Your task to perform on an android device: Open location settings Image 0: 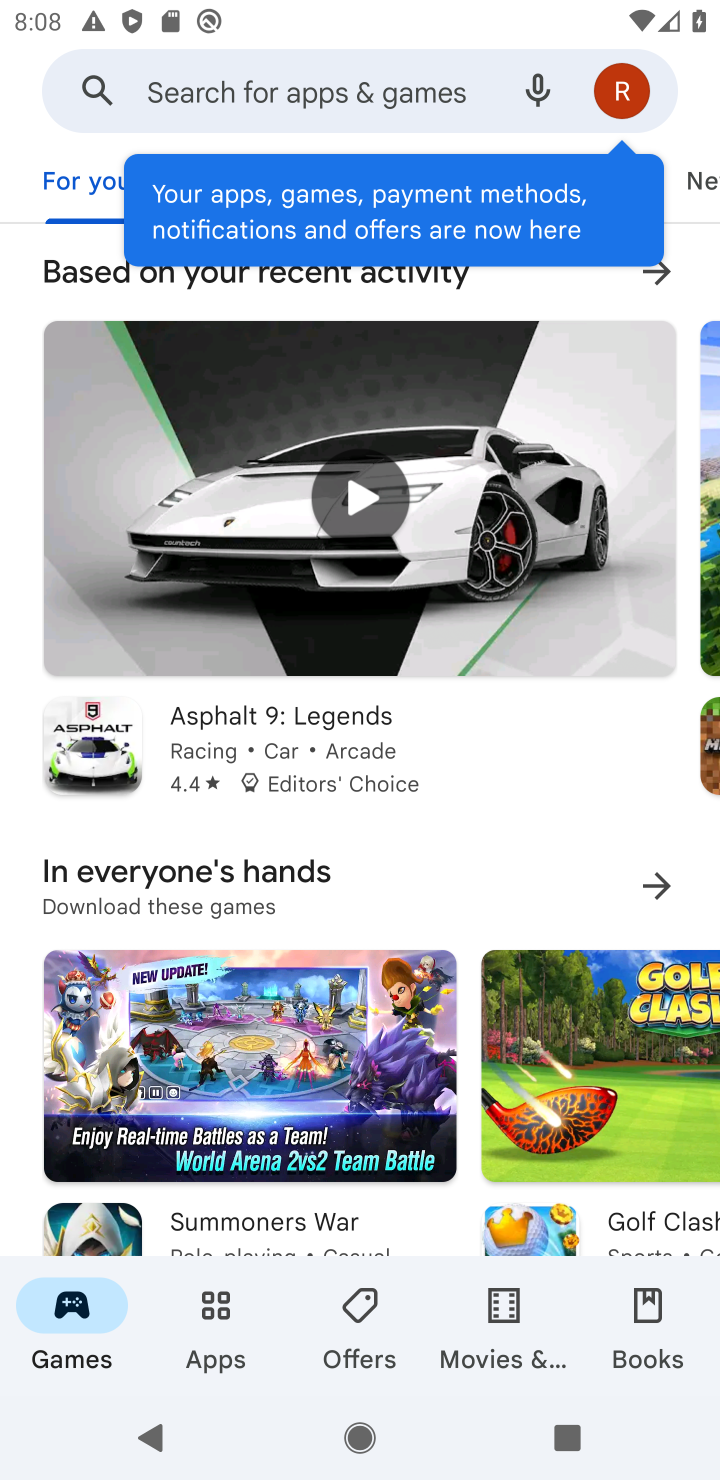
Step 0: press back button
Your task to perform on an android device: Open location settings Image 1: 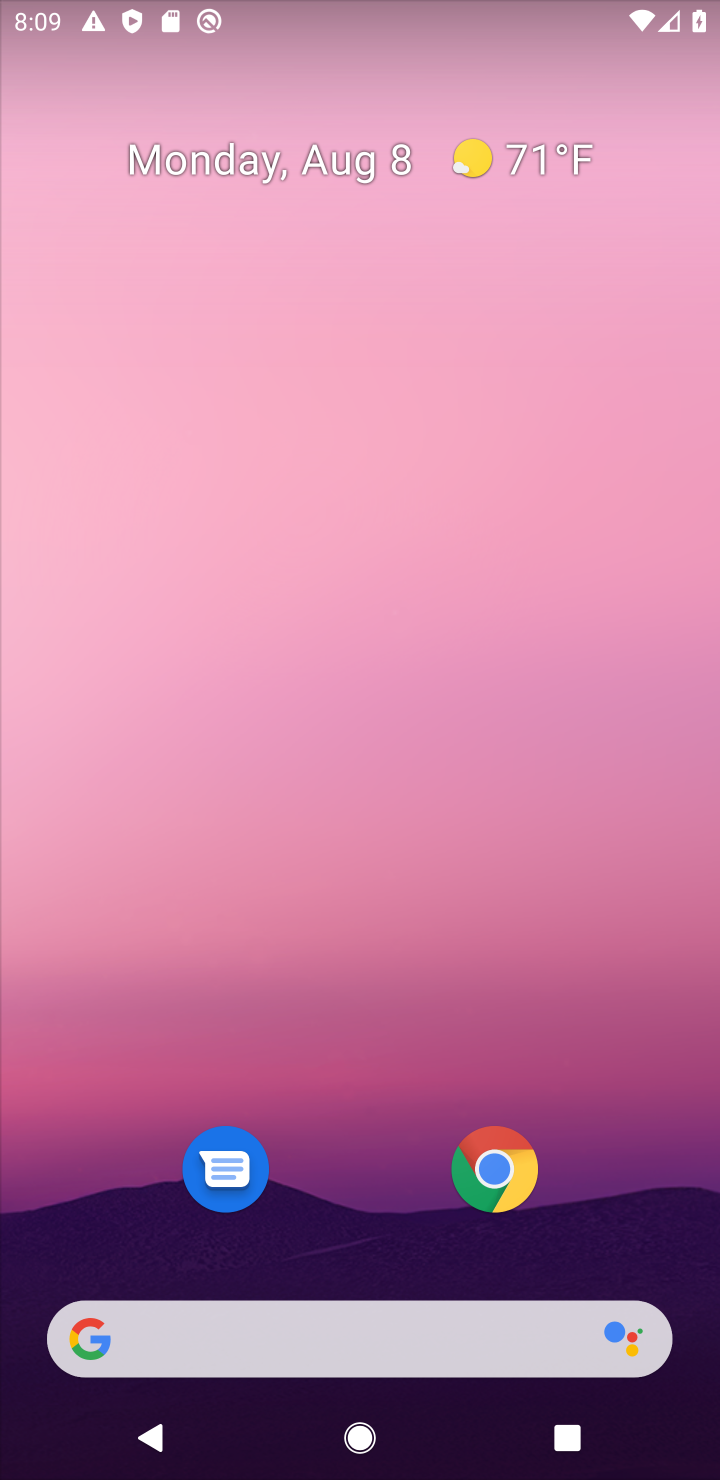
Step 1: drag from (465, 760) to (614, 91)
Your task to perform on an android device: Open location settings Image 2: 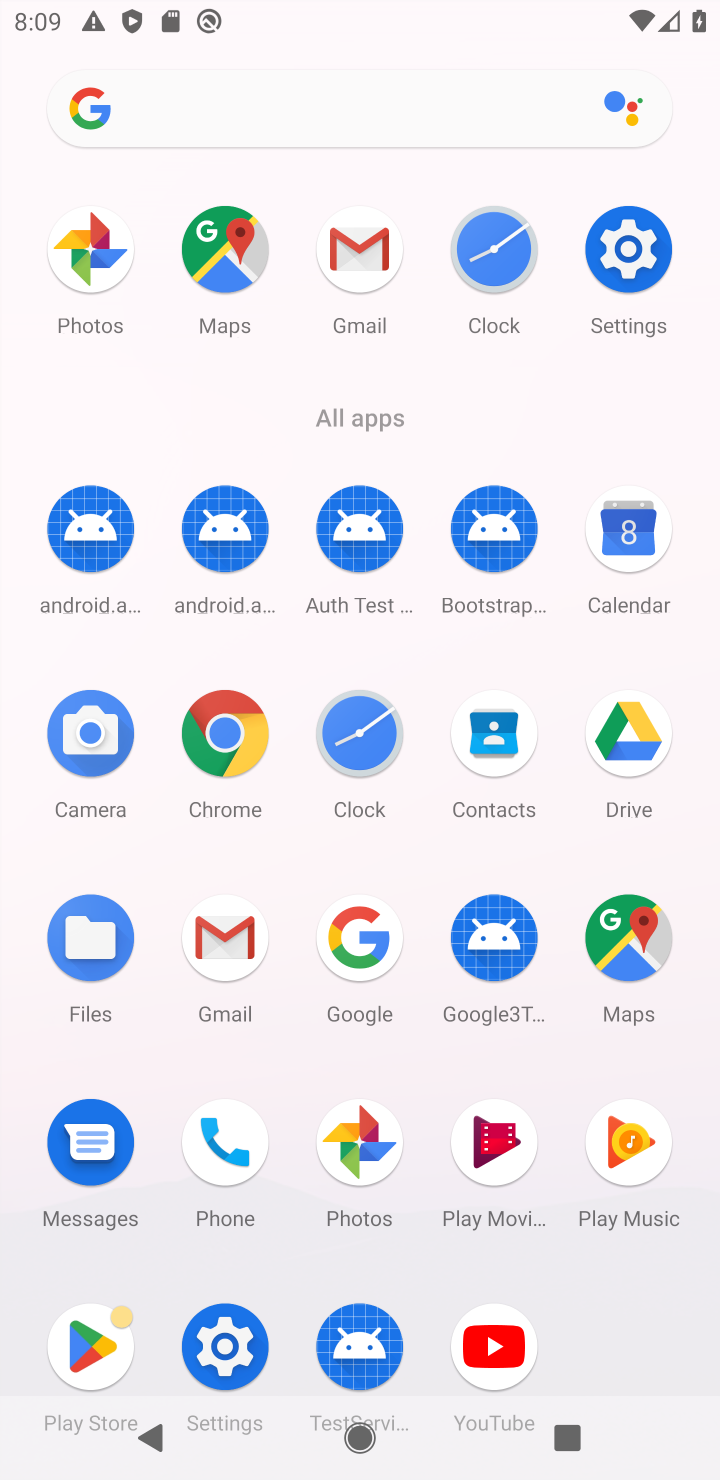
Step 2: click (637, 231)
Your task to perform on an android device: Open location settings Image 3: 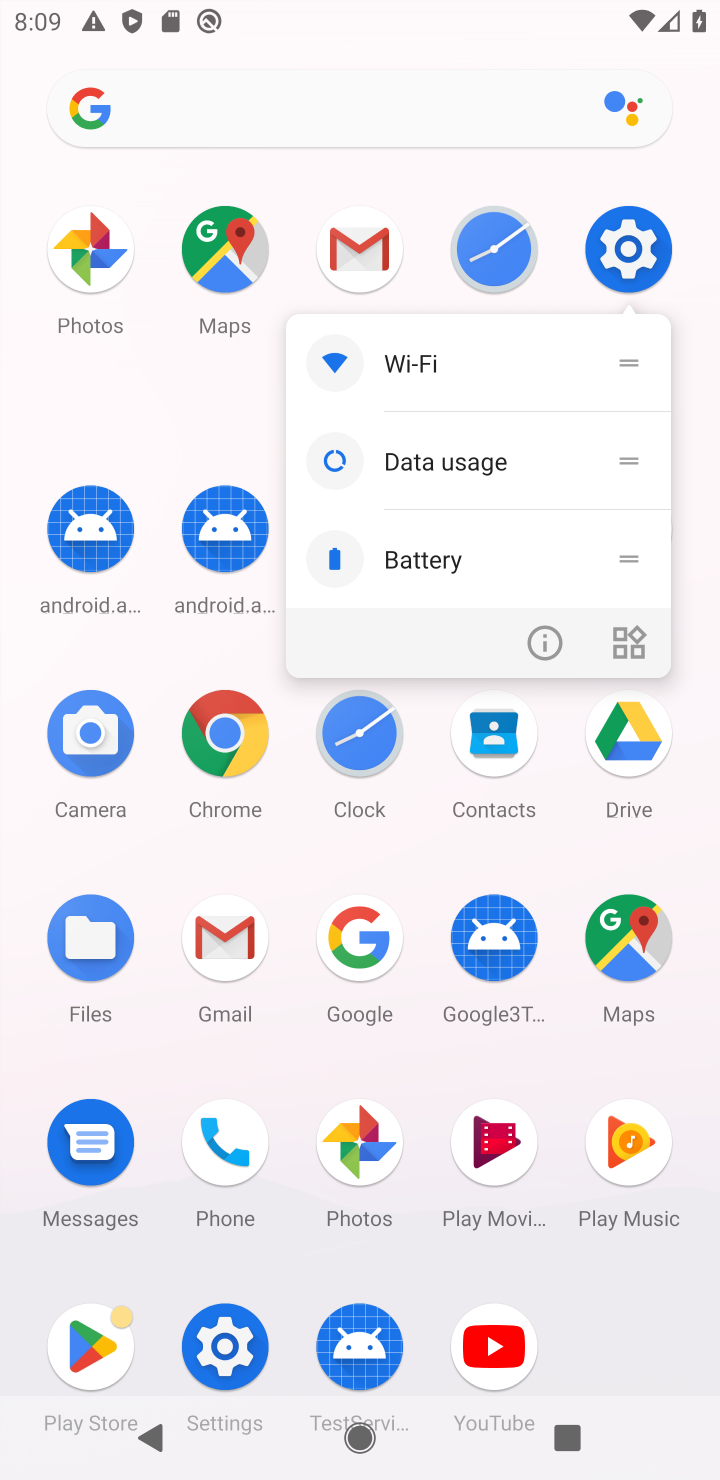
Step 3: click (639, 237)
Your task to perform on an android device: Open location settings Image 4: 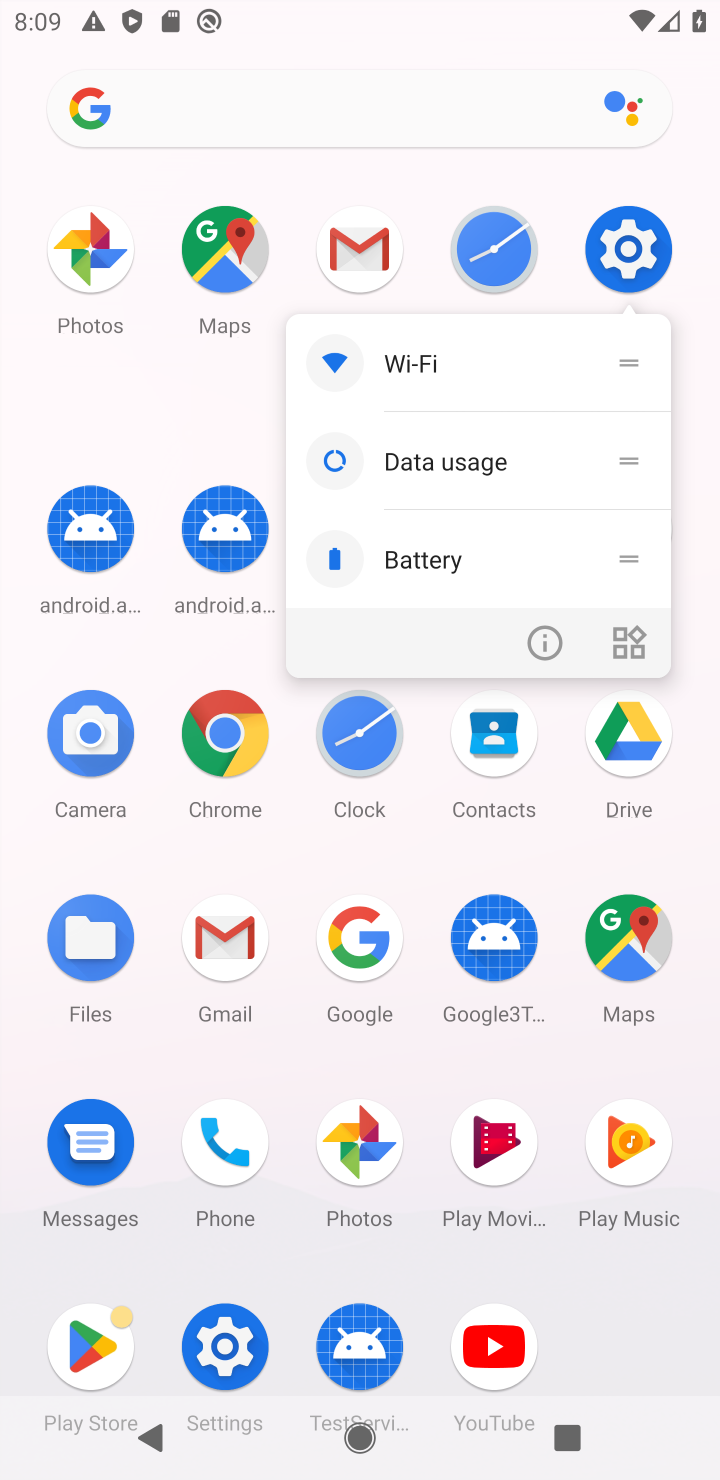
Step 4: click (618, 252)
Your task to perform on an android device: Open location settings Image 5: 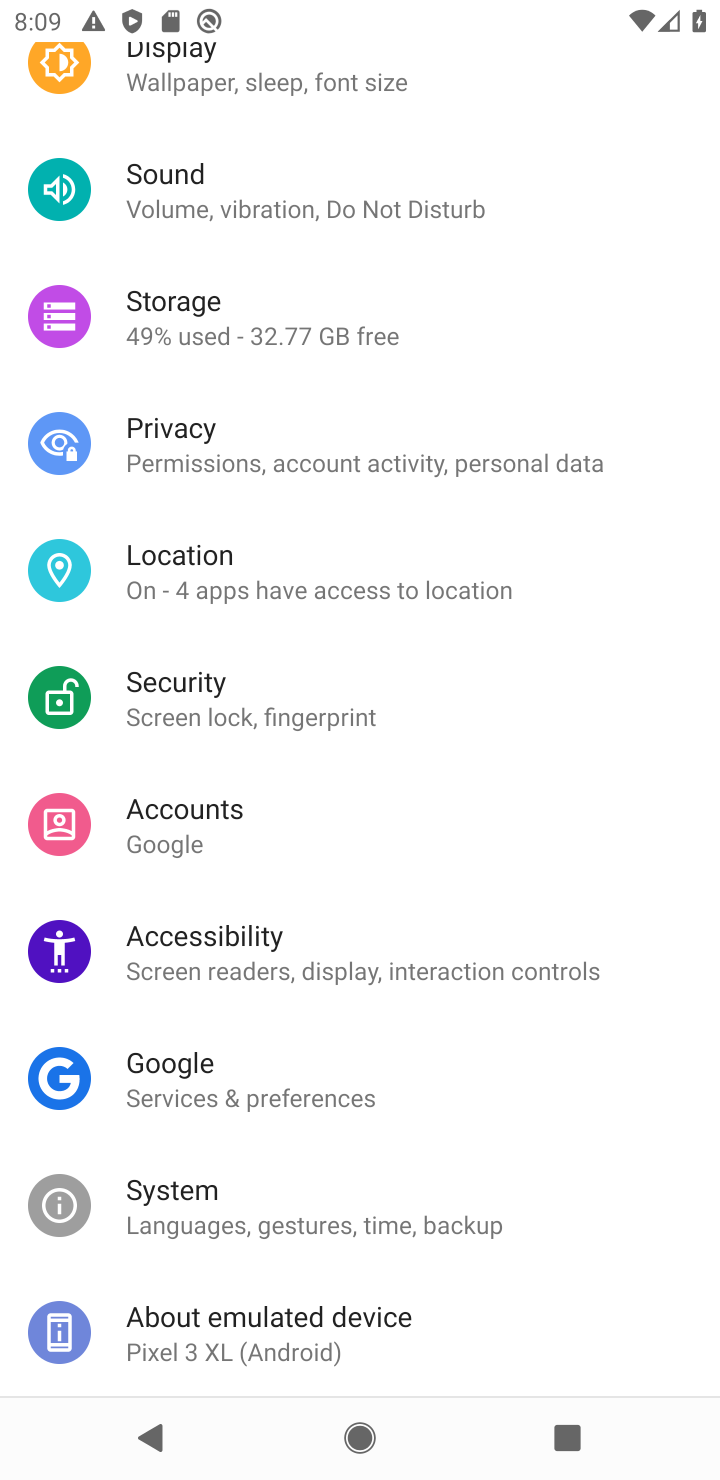
Step 5: click (660, 264)
Your task to perform on an android device: Open location settings Image 6: 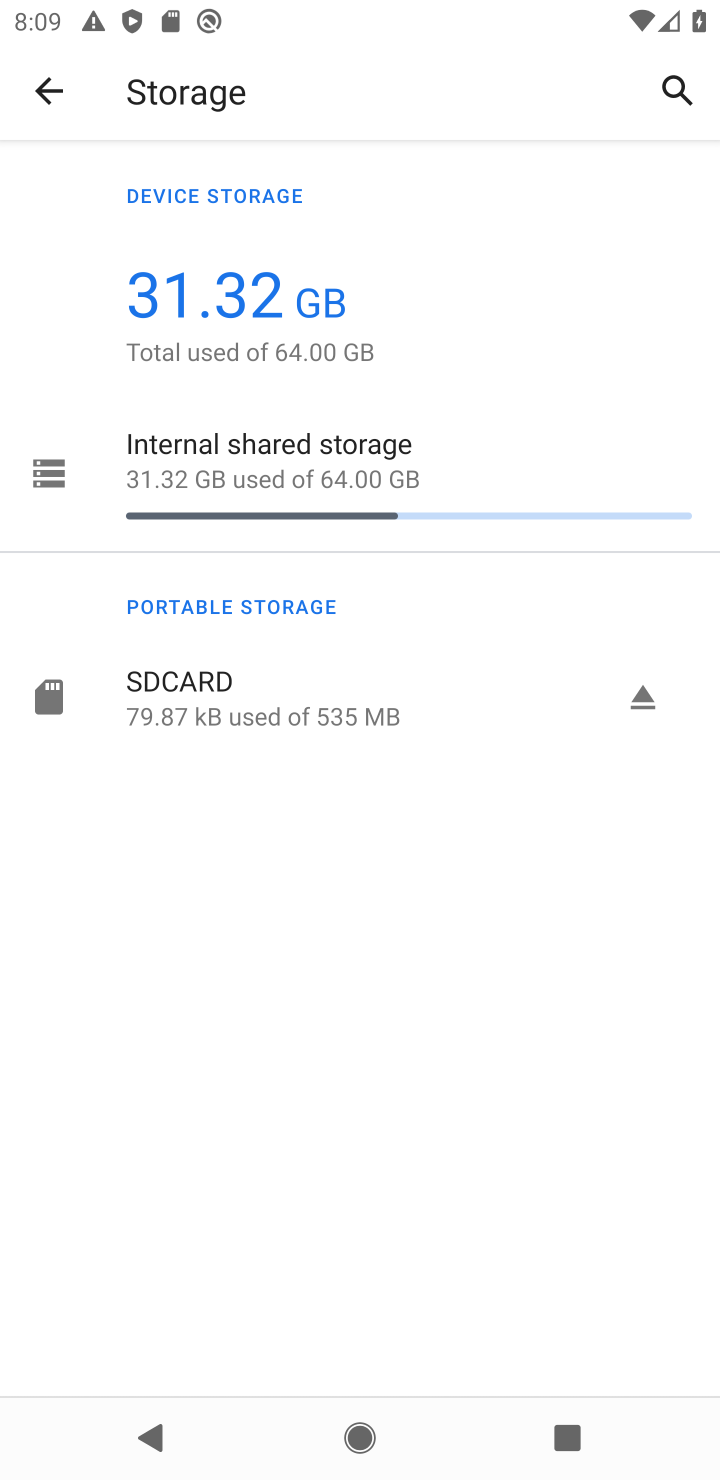
Step 6: click (34, 75)
Your task to perform on an android device: Open location settings Image 7: 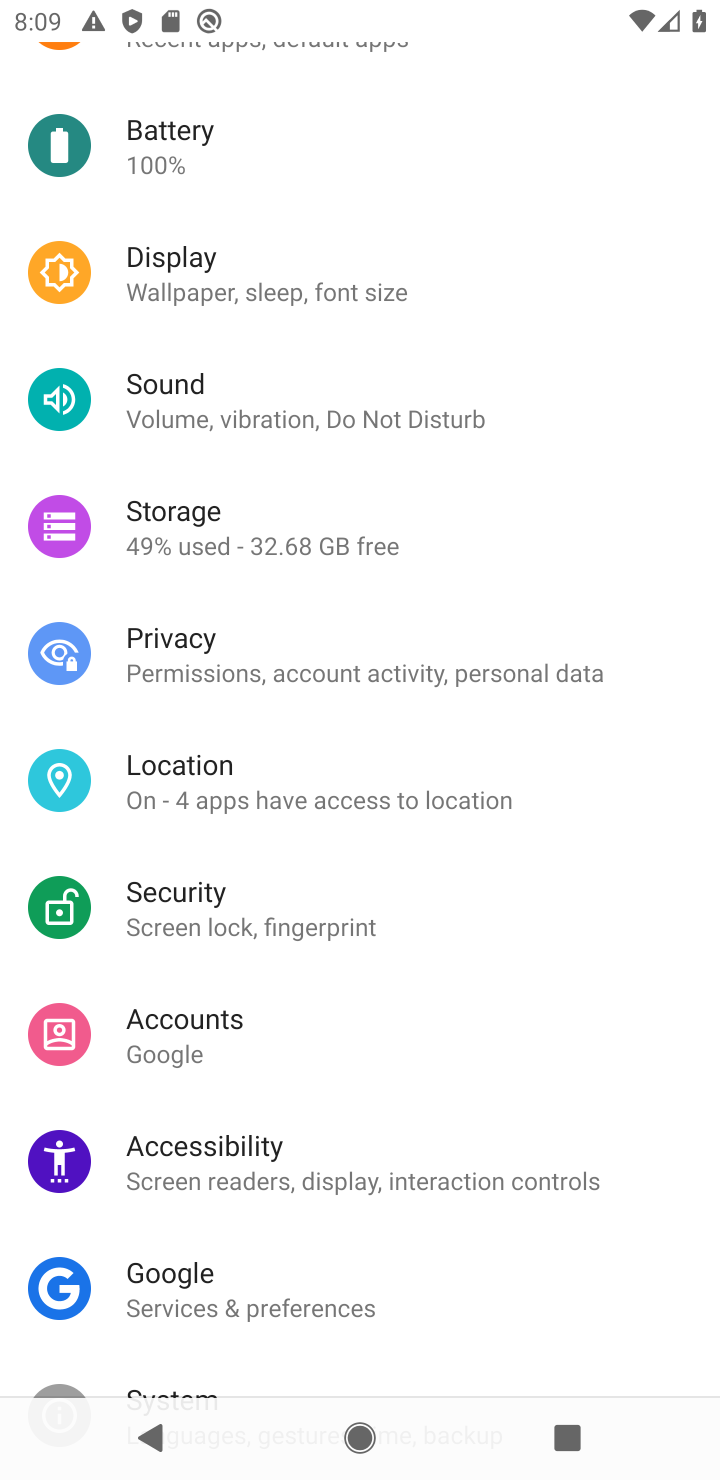
Step 7: click (226, 780)
Your task to perform on an android device: Open location settings Image 8: 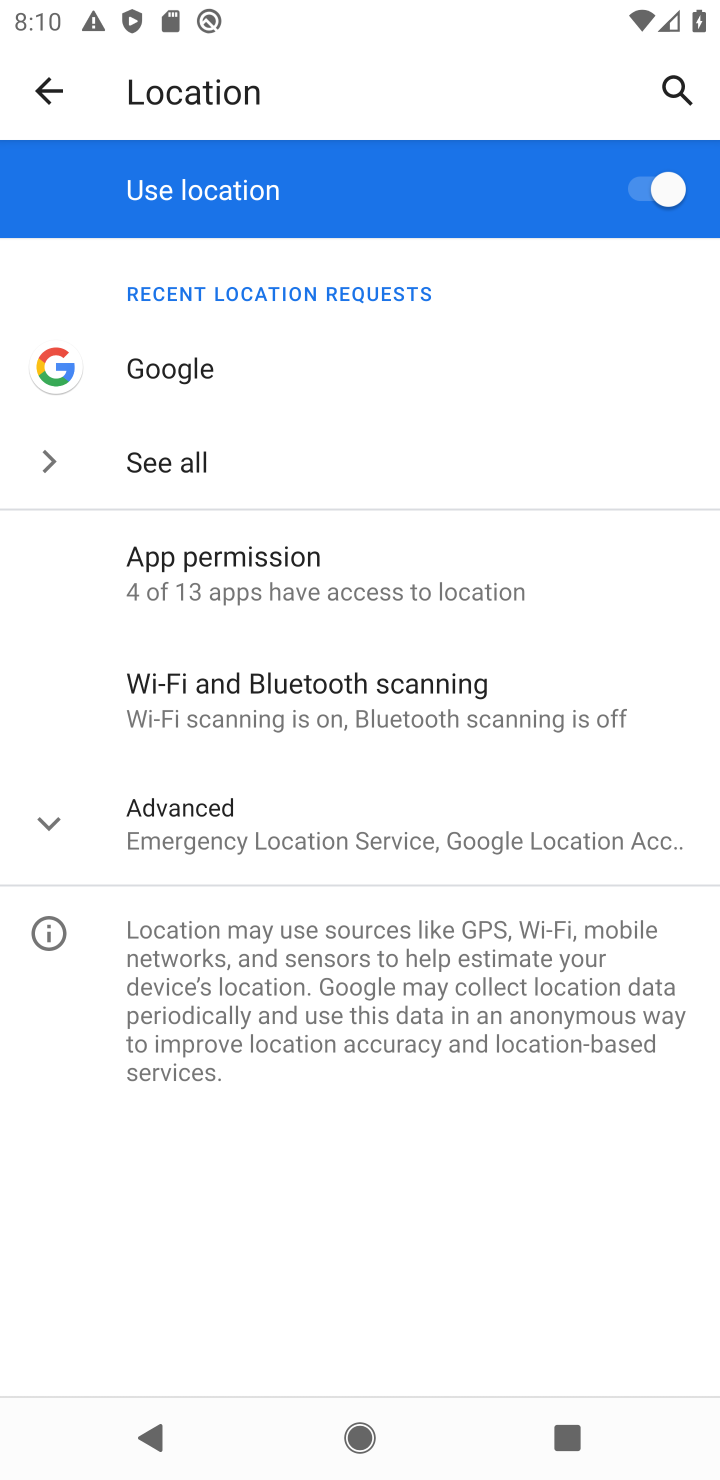
Step 8: task complete